Your task to perform on an android device: When is my next appointment? Image 0: 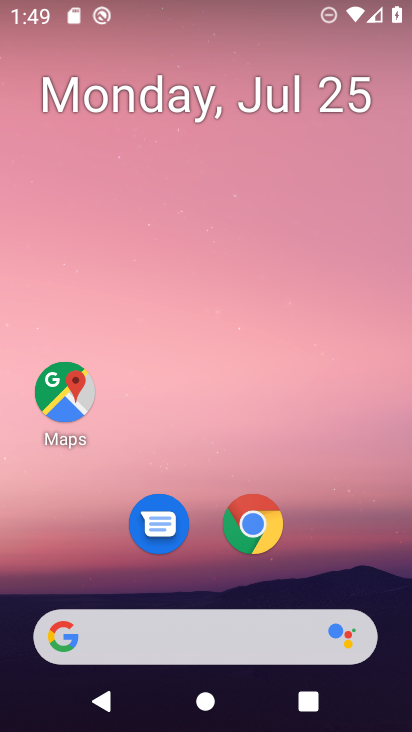
Step 0: press home button
Your task to perform on an android device: When is my next appointment? Image 1: 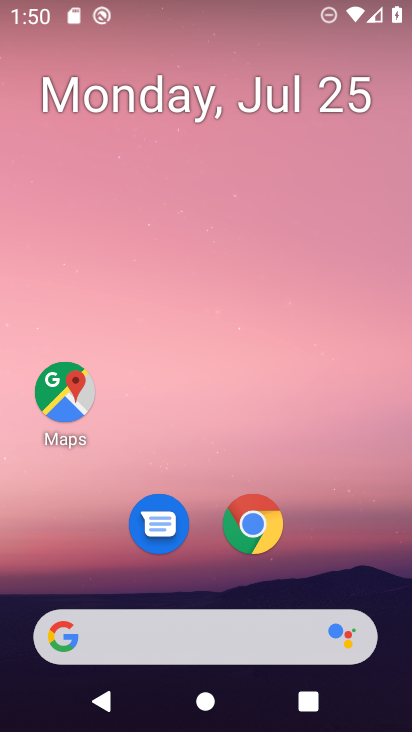
Step 1: drag from (148, 612) to (284, 98)
Your task to perform on an android device: When is my next appointment? Image 2: 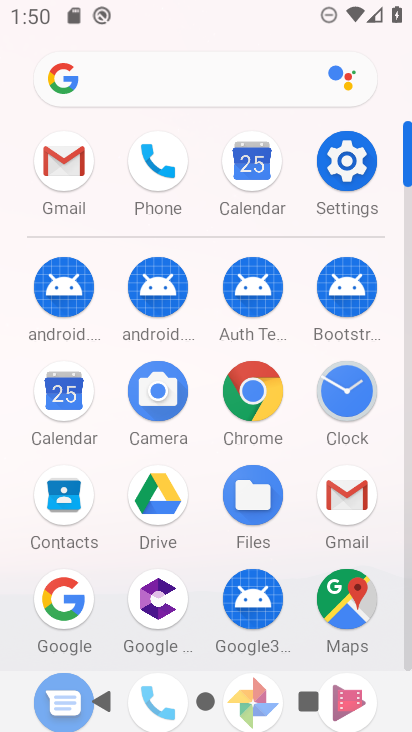
Step 2: click (66, 406)
Your task to perform on an android device: When is my next appointment? Image 3: 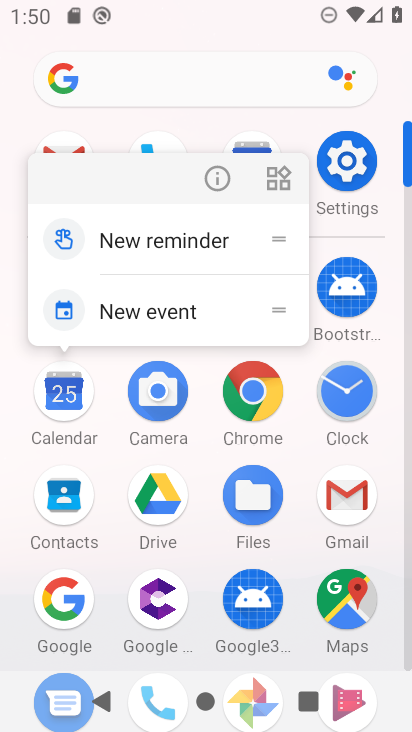
Step 3: click (64, 398)
Your task to perform on an android device: When is my next appointment? Image 4: 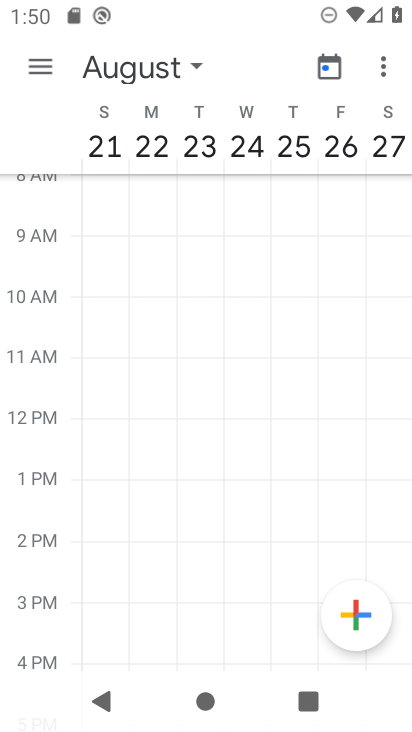
Step 4: click (154, 55)
Your task to perform on an android device: When is my next appointment? Image 5: 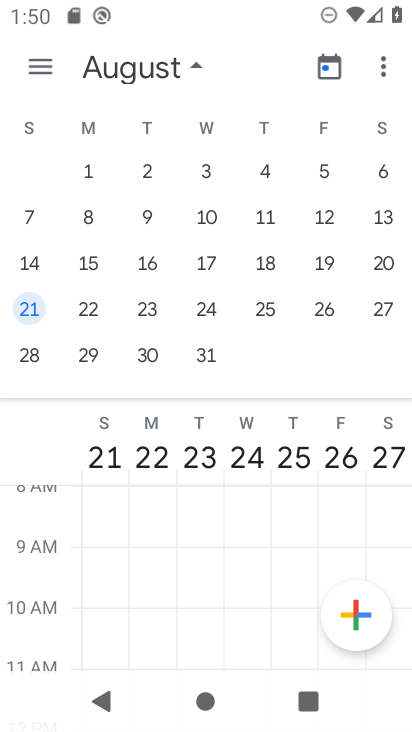
Step 5: drag from (87, 318) to (407, 301)
Your task to perform on an android device: When is my next appointment? Image 6: 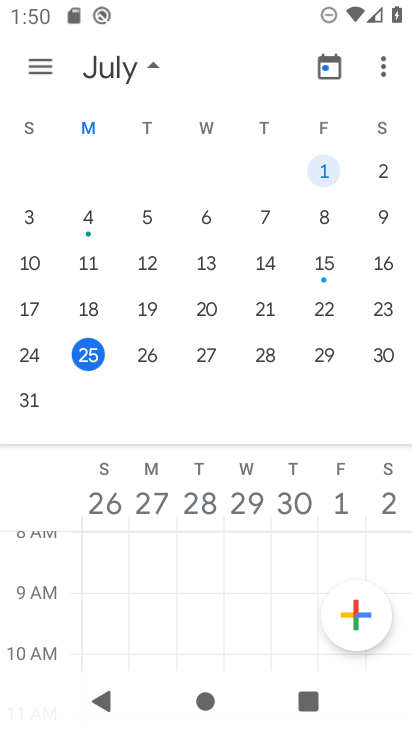
Step 6: click (90, 352)
Your task to perform on an android device: When is my next appointment? Image 7: 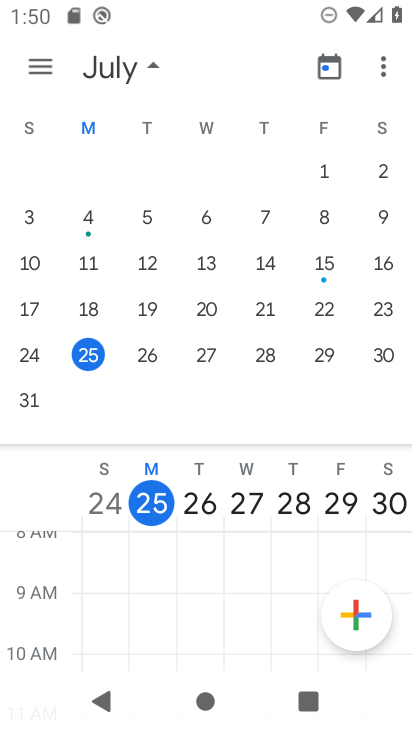
Step 7: click (40, 70)
Your task to perform on an android device: When is my next appointment? Image 8: 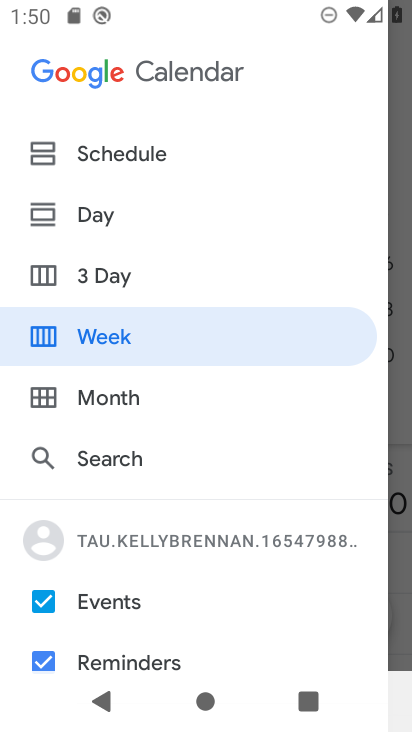
Step 8: click (114, 335)
Your task to perform on an android device: When is my next appointment? Image 9: 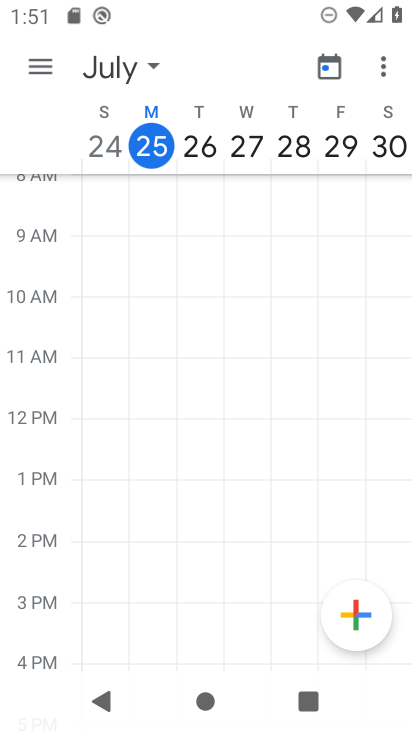
Step 9: click (47, 65)
Your task to perform on an android device: When is my next appointment? Image 10: 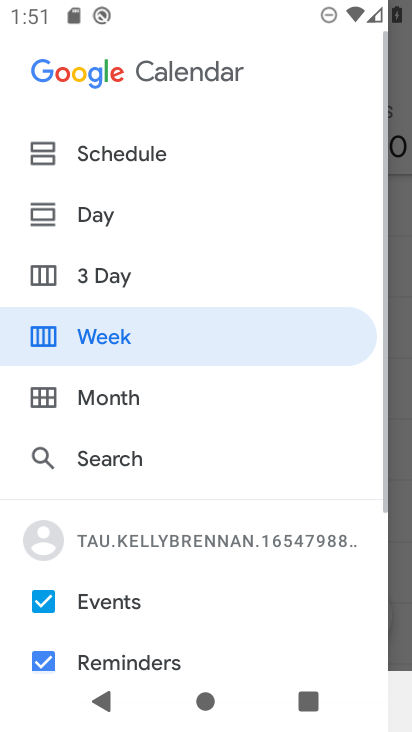
Step 10: click (126, 154)
Your task to perform on an android device: When is my next appointment? Image 11: 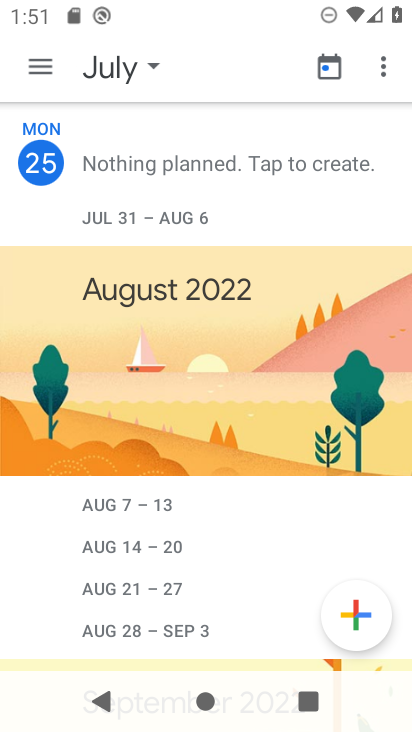
Step 11: task complete